Your task to perform on an android device: Open privacy settings Image 0: 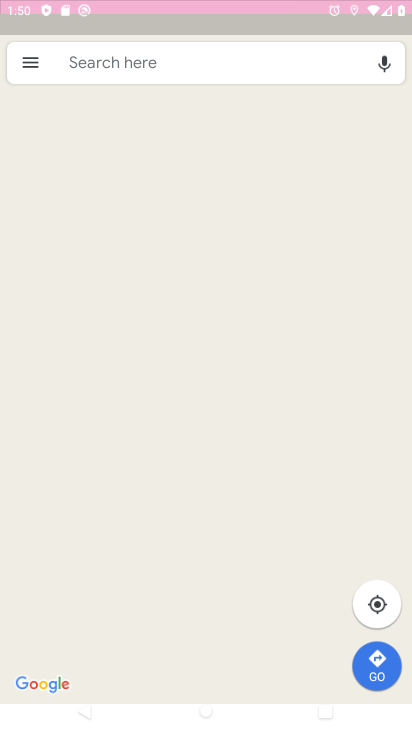
Step 0: click (133, 594)
Your task to perform on an android device: Open privacy settings Image 1: 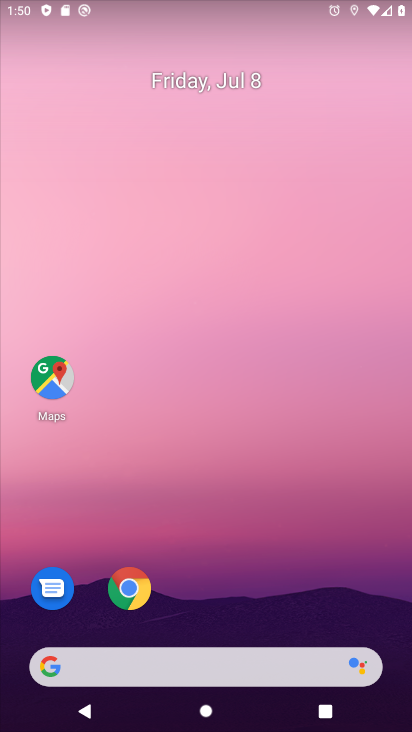
Step 1: click (135, 608)
Your task to perform on an android device: Open privacy settings Image 2: 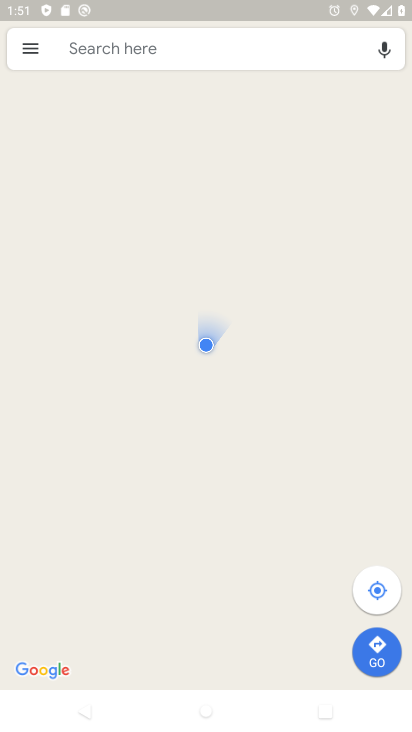
Step 2: press home button
Your task to perform on an android device: Open privacy settings Image 3: 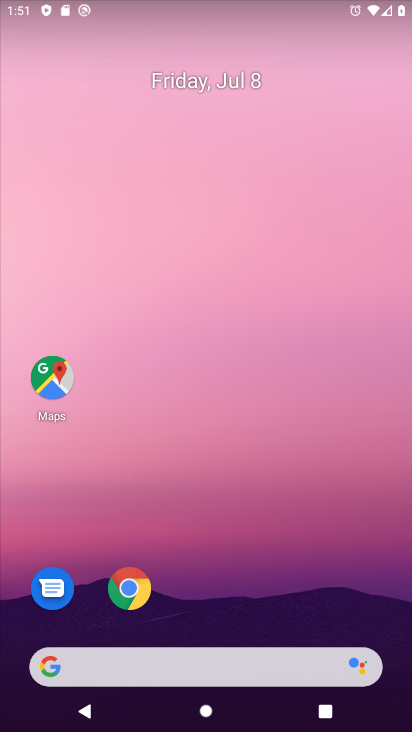
Step 3: click (149, 606)
Your task to perform on an android device: Open privacy settings Image 4: 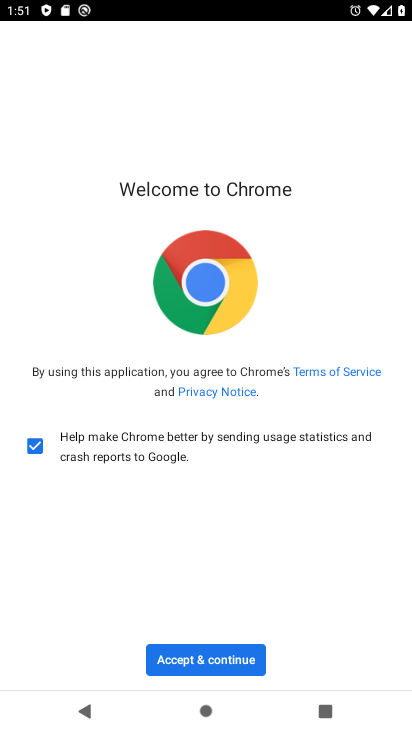
Step 4: click (199, 664)
Your task to perform on an android device: Open privacy settings Image 5: 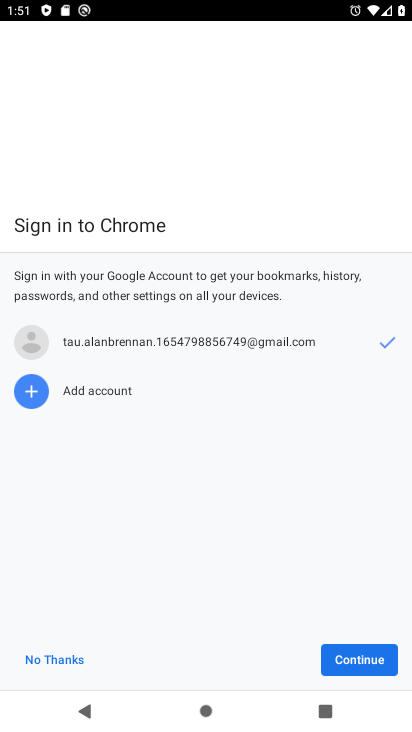
Step 5: click (345, 668)
Your task to perform on an android device: Open privacy settings Image 6: 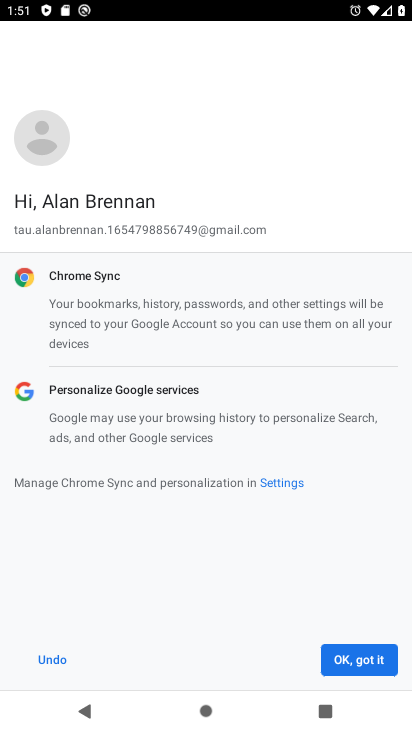
Step 6: click (346, 668)
Your task to perform on an android device: Open privacy settings Image 7: 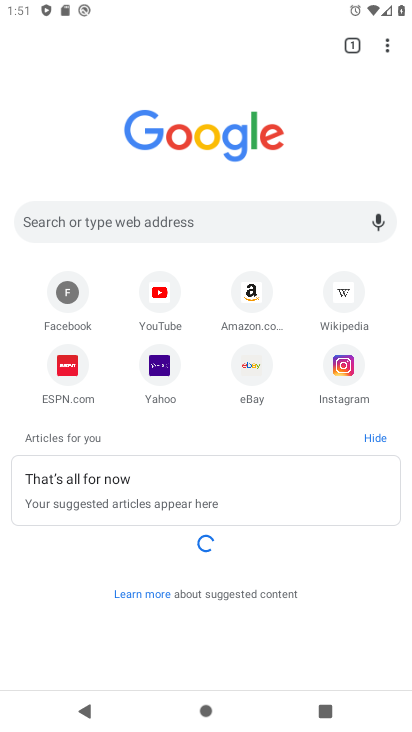
Step 7: drag from (391, 43) to (266, 365)
Your task to perform on an android device: Open privacy settings Image 8: 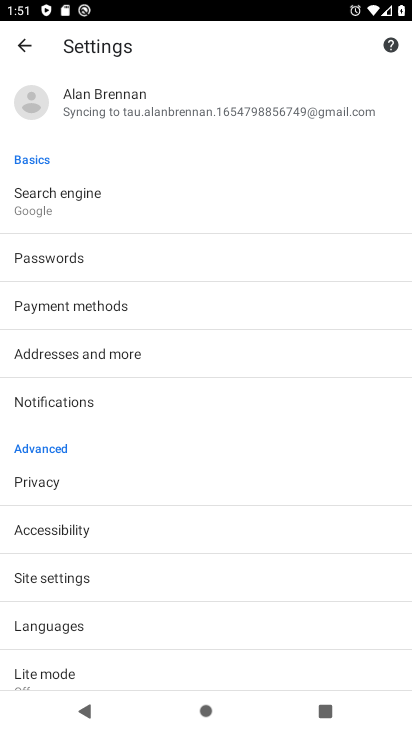
Step 8: click (94, 488)
Your task to perform on an android device: Open privacy settings Image 9: 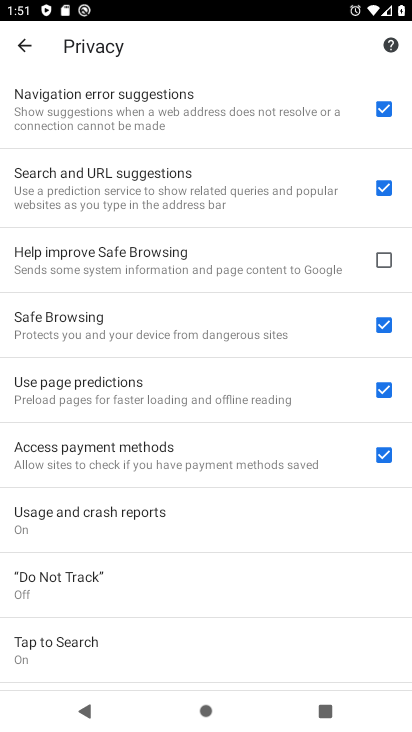
Step 9: task complete